Your task to perform on an android device: When is my next appointment? Image 0: 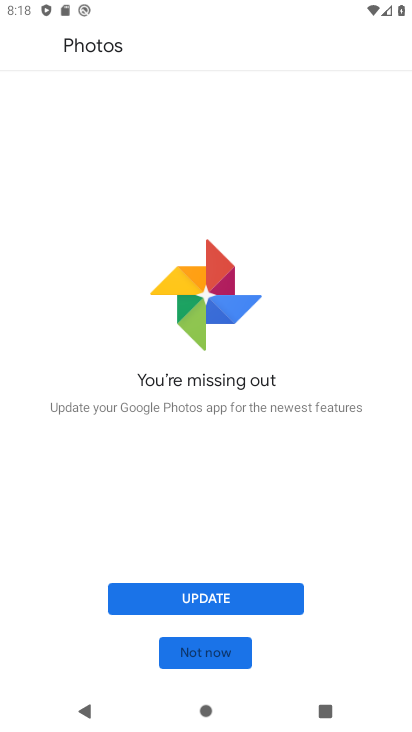
Step 0: press home button
Your task to perform on an android device: When is my next appointment? Image 1: 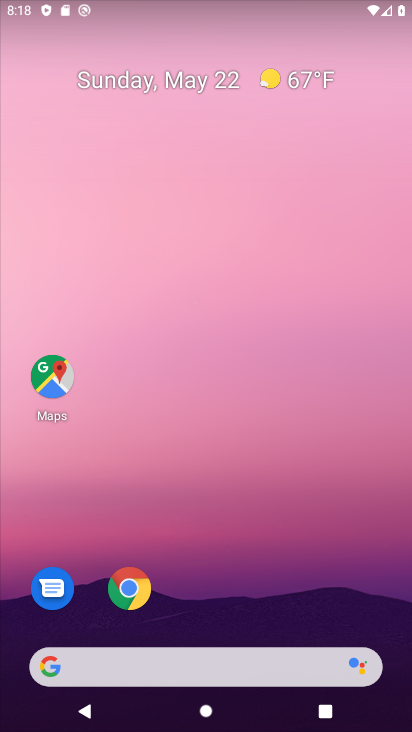
Step 1: drag from (245, 608) to (195, 147)
Your task to perform on an android device: When is my next appointment? Image 2: 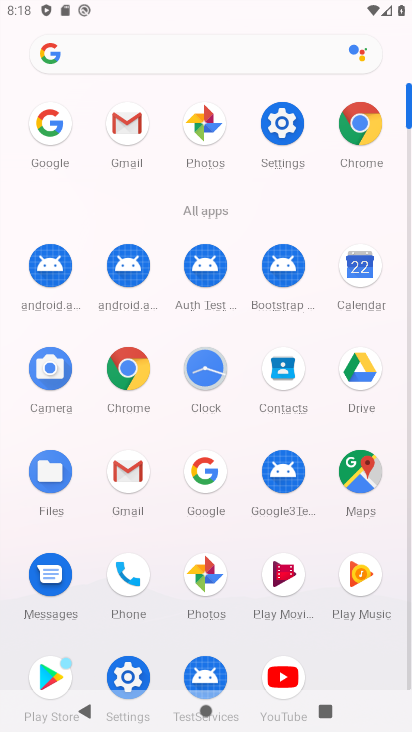
Step 2: click (356, 285)
Your task to perform on an android device: When is my next appointment? Image 3: 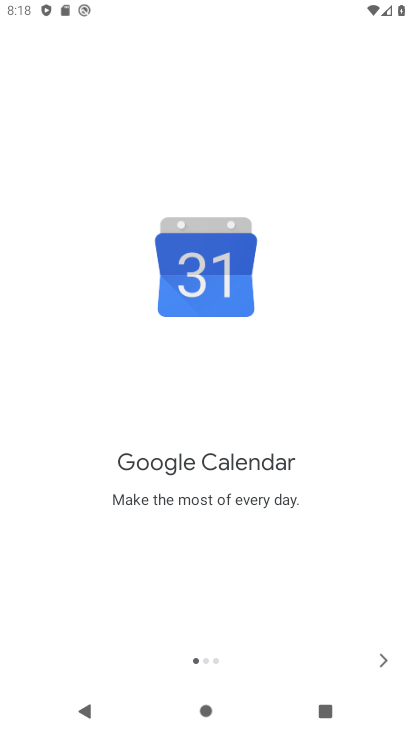
Step 3: click (376, 667)
Your task to perform on an android device: When is my next appointment? Image 4: 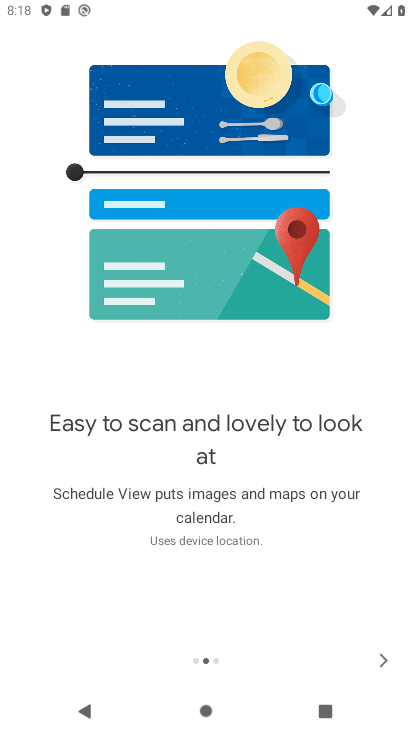
Step 4: click (385, 660)
Your task to perform on an android device: When is my next appointment? Image 5: 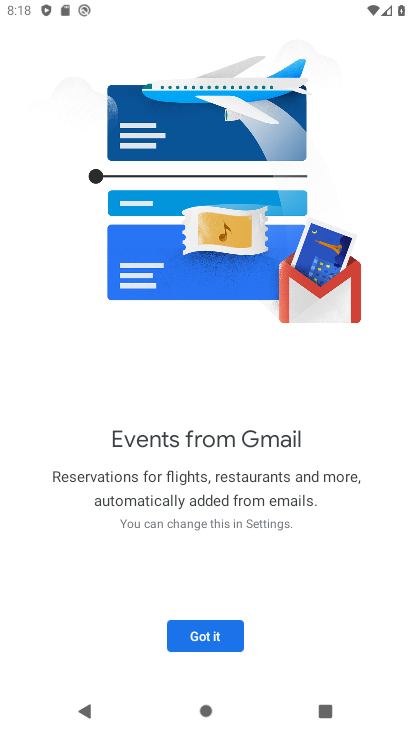
Step 5: click (227, 633)
Your task to perform on an android device: When is my next appointment? Image 6: 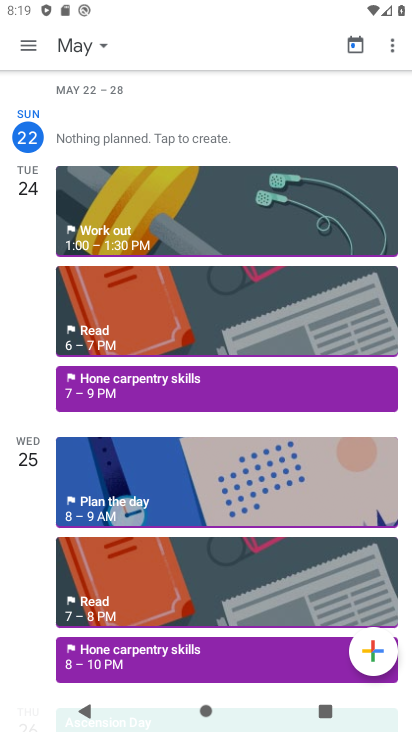
Step 6: click (99, 45)
Your task to perform on an android device: When is my next appointment? Image 7: 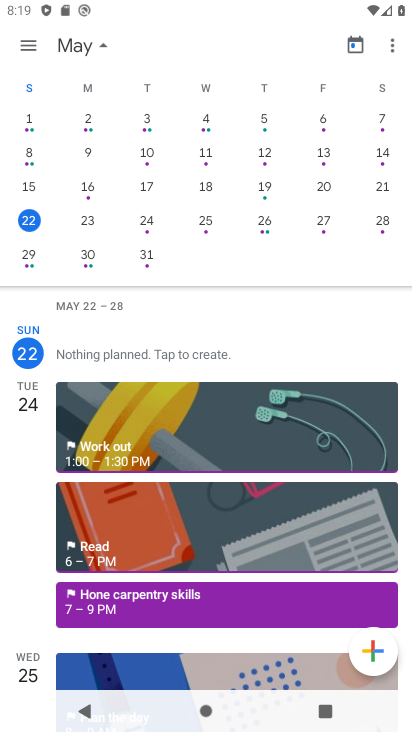
Step 7: task complete